Your task to perform on an android device: turn on improve location accuracy Image 0: 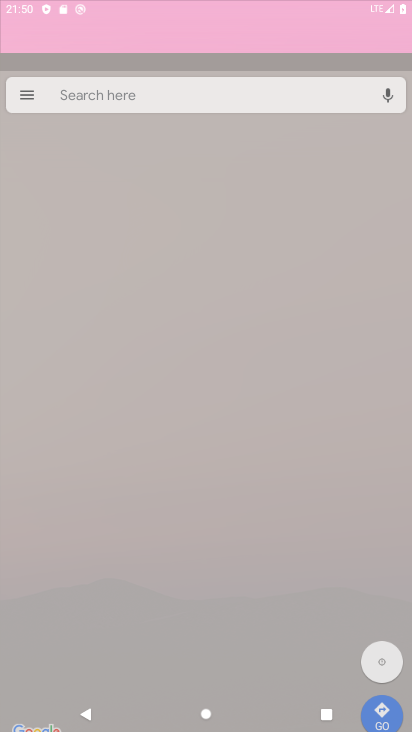
Step 0: click (198, 37)
Your task to perform on an android device: turn on improve location accuracy Image 1: 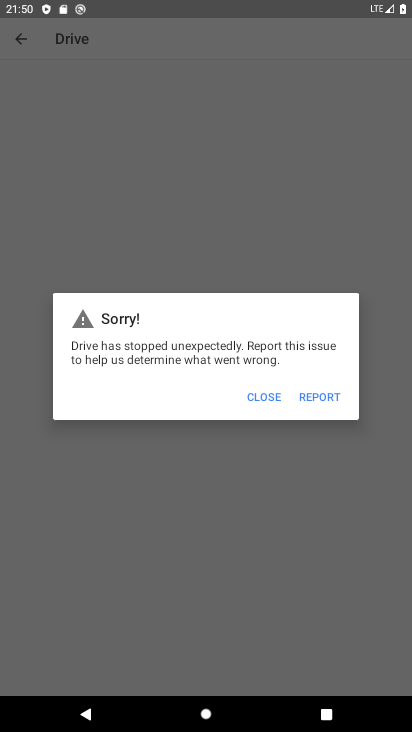
Step 1: press home button
Your task to perform on an android device: turn on improve location accuracy Image 2: 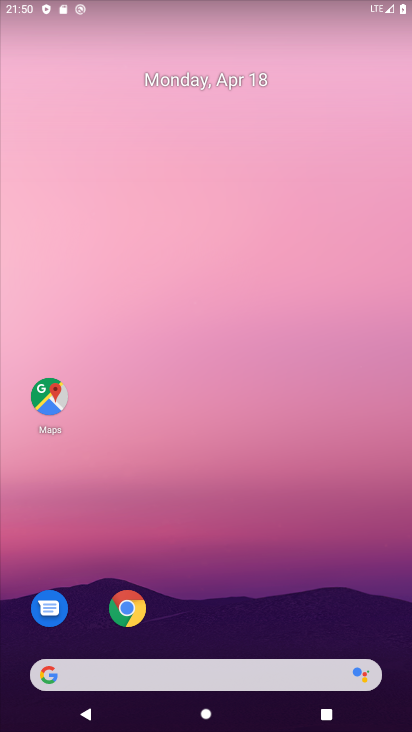
Step 2: drag from (200, 532) to (197, 94)
Your task to perform on an android device: turn on improve location accuracy Image 3: 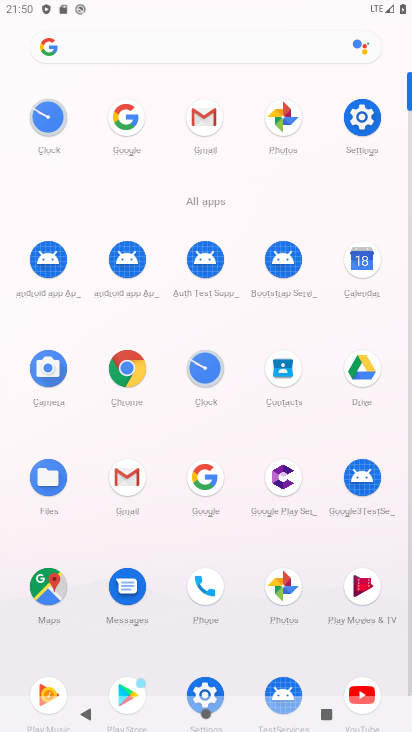
Step 3: click (359, 120)
Your task to perform on an android device: turn on improve location accuracy Image 4: 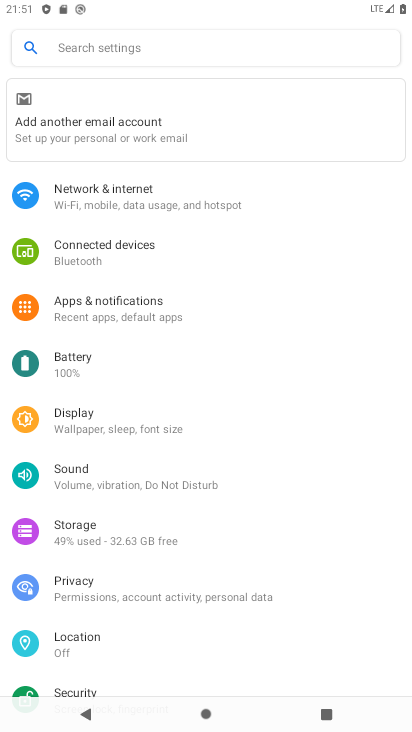
Step 4: click (124, 646)
Your task to perform on an android device: turn on improve location accuracy Image 5: 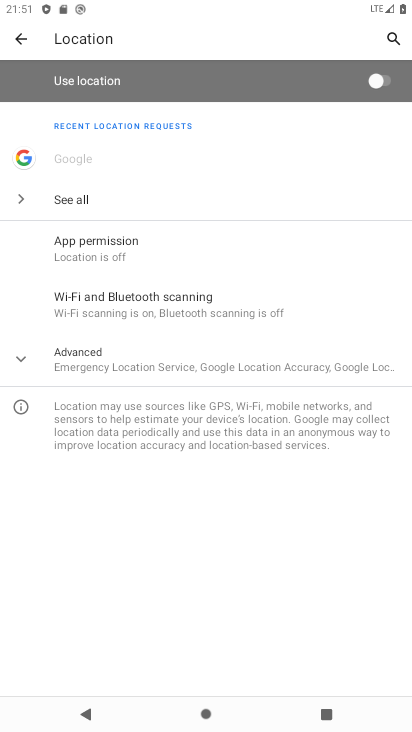
Step 5: click (111, 355)
Your task to perform on an android device: turn on improve location accuracy Image 6: 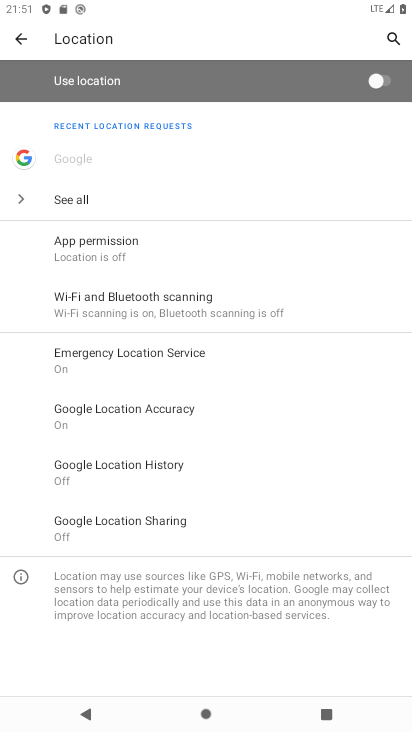
Step 6: click (141, 414)
Your task to perform on an android device: turn on improve location accuracy Image 7: 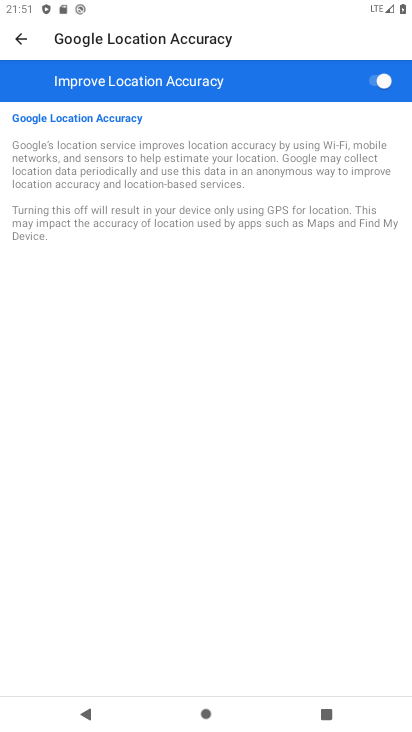
Step 7: task complete